Your task to perform on an android device: check the backup settings in the google photos Image 0: 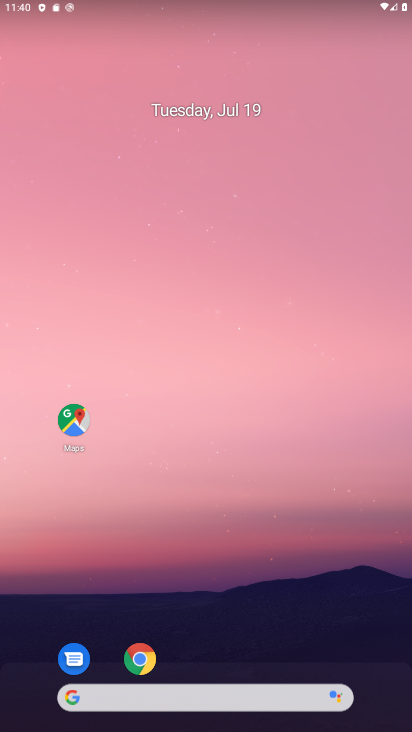
Step 0: drag from (226, 667) to (249, 217)
Your task to perform on an android device: check the backup settings in the google photos Image 1: 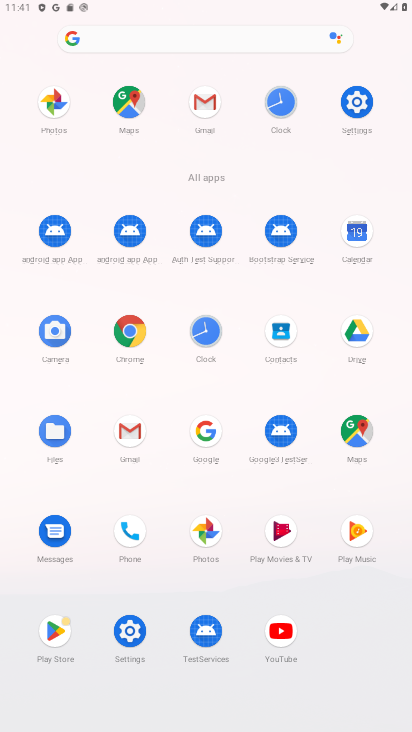
Step 1: click (204, 531)
Your task to perform on an android device: check the backup settings in the google photos Image 2: 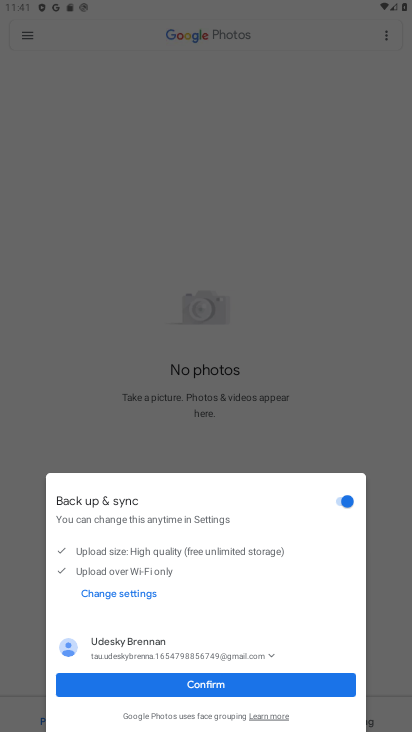
Step 2: click (207, 679)
Your task to perform on an android device: check the backup settings in the google photos Image 3: 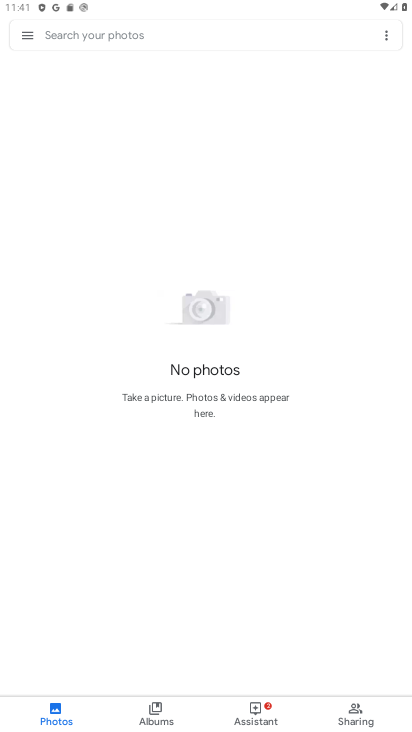
Step 3: click (24, 31)
Your task to perform on an android device: check the backup settings in the google photos Image 4: 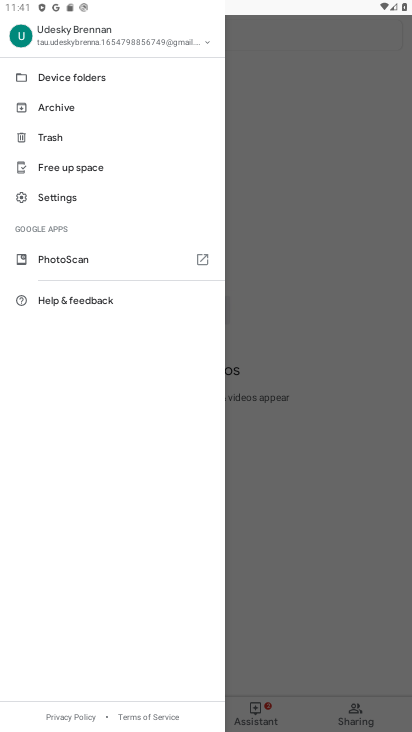
Step 4: click (72, 197)
Your task to perform on an android device: check the backup settings in the google photos Image 5: 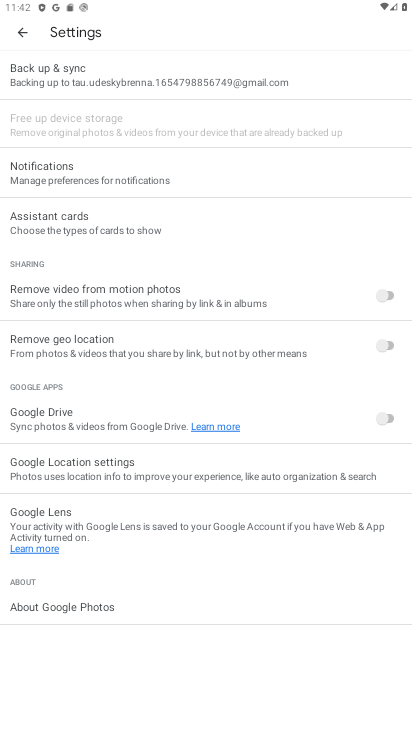
Step 5: click (49, 72)
Your task to perform on an android device: check the backup settings in the google photos Image 6: 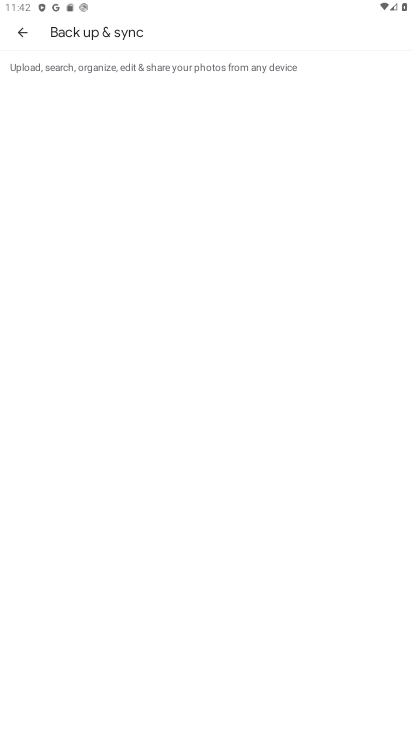
Step 6: task complete